Your task to perform on an android device: Open CNN.com Image 0: 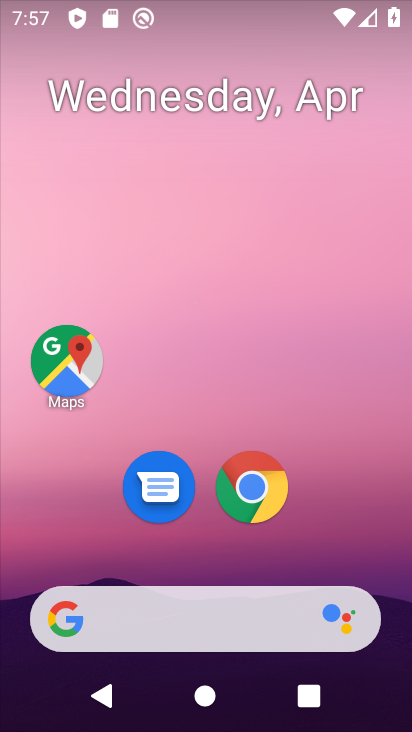
Step 0: click (252, 494)
Your task to perform on an android device: Open CNN.com Image 1: 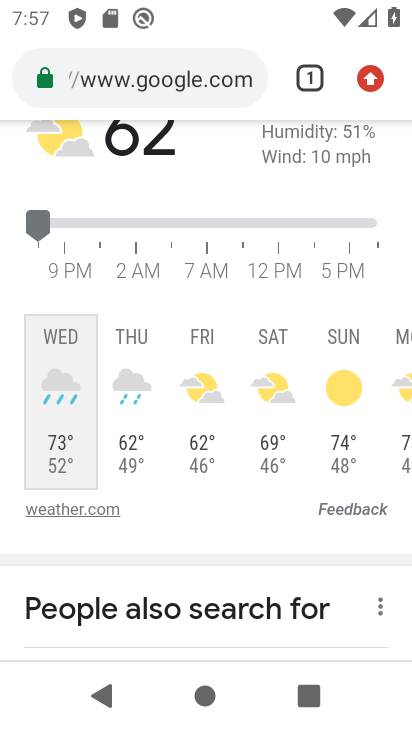
Step 1: click (217, 82)
Your task to perform on an android device: Open CNN.com Image 2: 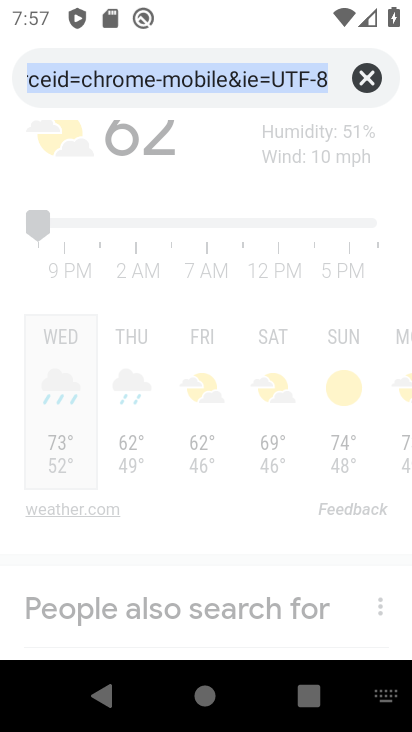
Step 2: type "cnn.com"
Your task to perform on an android device: Open CNN.com Image 3: 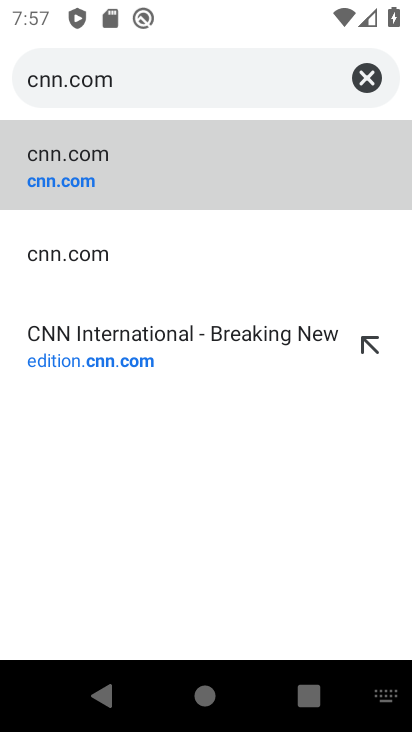
Step 3: click (87, 183)
Your task to perform on an android device: Open CNN.com Image 4: 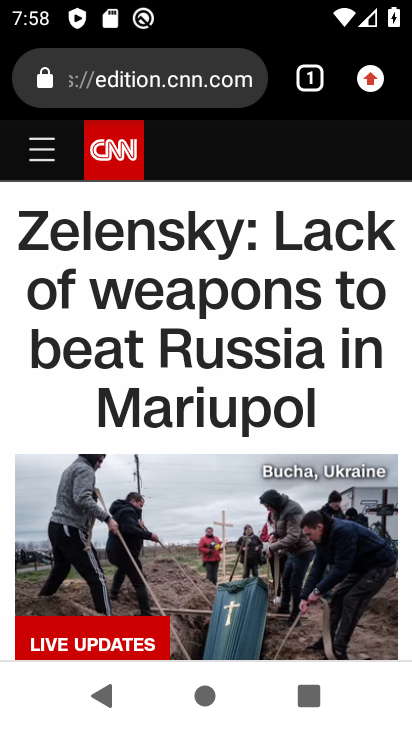
Step 4: task complete